Your task to perform on an android device: delete the emails in spam in the gmail app Image 0: 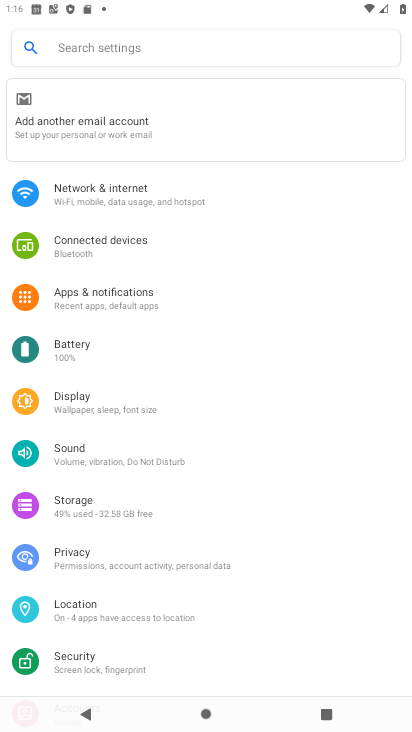
Step 0: press home button
Your task to perform on an android device: delete the emails in spam in the gmail app Image 1: 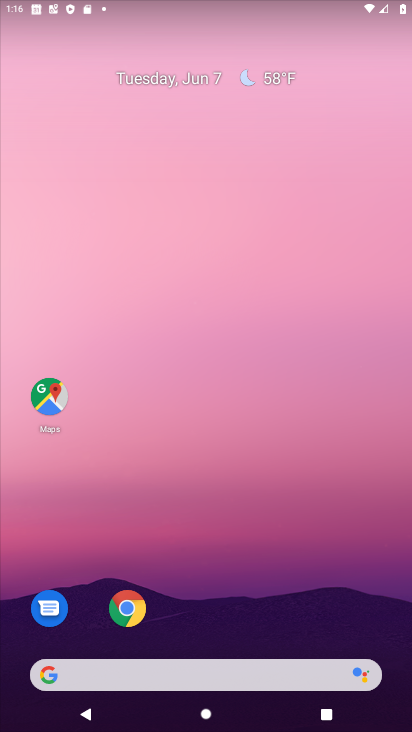
Step 1: drag from (329, 575) to (254, 127)
Your task to perform on an android device: delete the emails in spam in the gmail app Image 2: 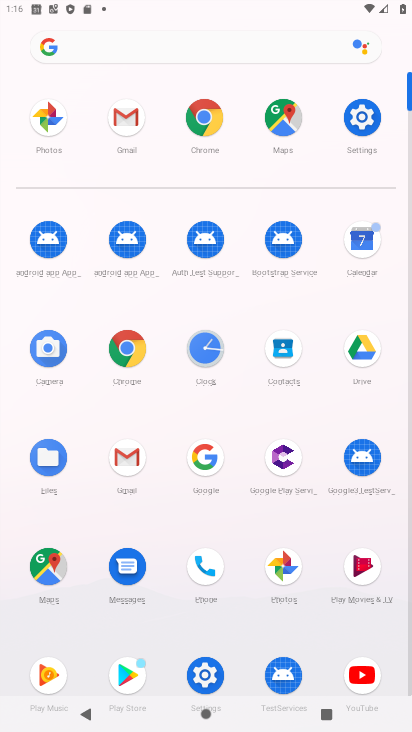
Step 2: click (135, 115)
Your task to perform on an android device: delete the emails in spam in the gmail app Image 3: 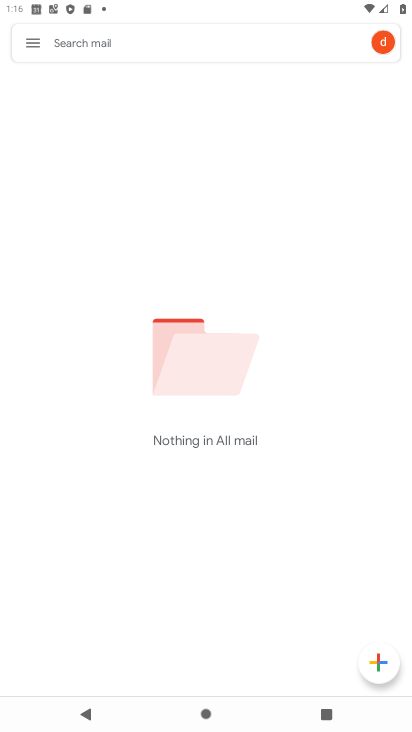
Step 3: task complete